Your task to perform on an android device: change your default location settings in chrome Image 0: 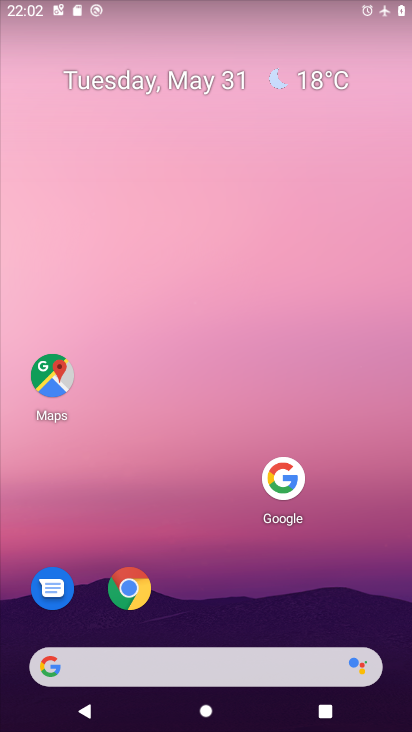
Step 0: press home button
Your task to perform on an android device: change your default location settings in chrome Image 1: 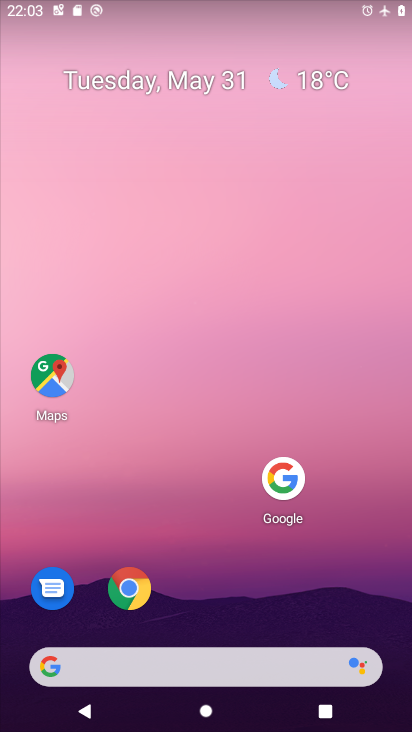
Step 1: click (126, 593)
Your task to perform on an android device: change your default location settings in chrome Image 2: 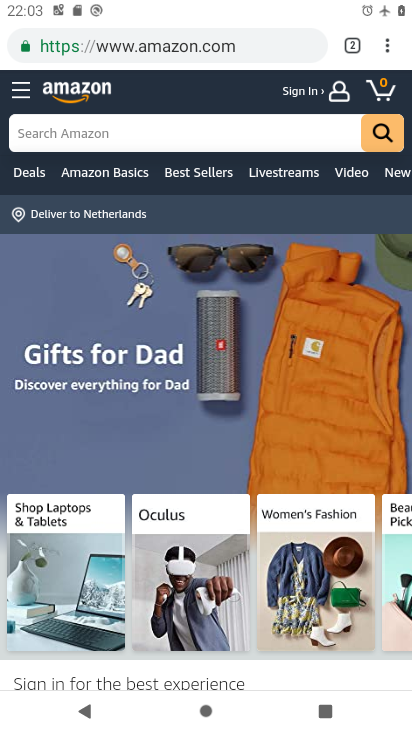
Step 2: drag from (383, 45) to (257, 512)
Your task to perform on an android device: change your default location settings in chrome Image 3: 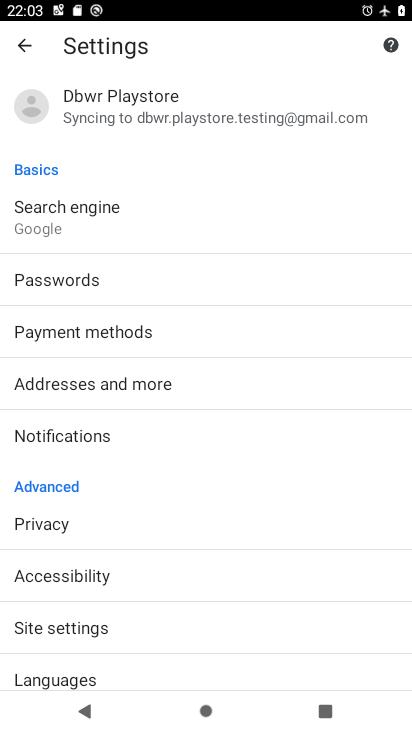
Step 3: click (88, 625)
Your task to perform on an android device: change your default location settings in chrome Image 4: 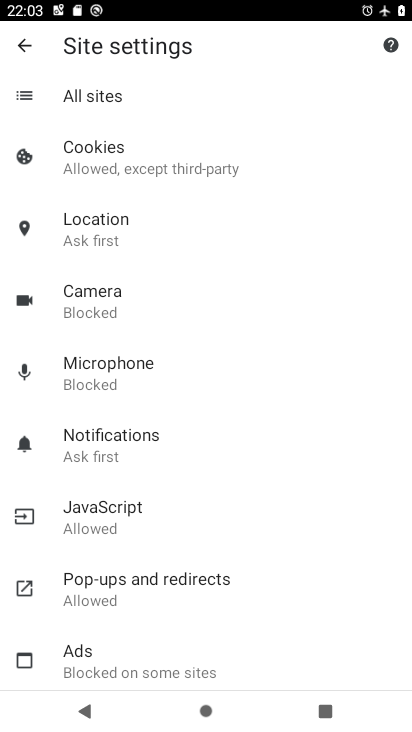
Step 4: click (102, 237)
Your task to perform on an android device: change your default location settings in chrome Image 5: 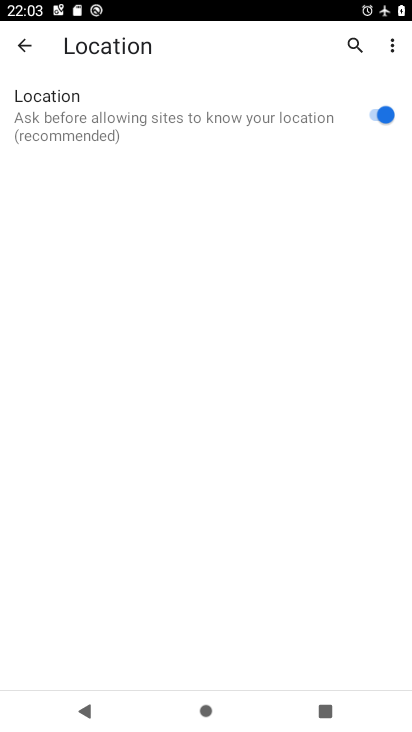
Step 5: click (369, 111)
Your task to perform on an android device: change your default location settings in chrome Image 6: 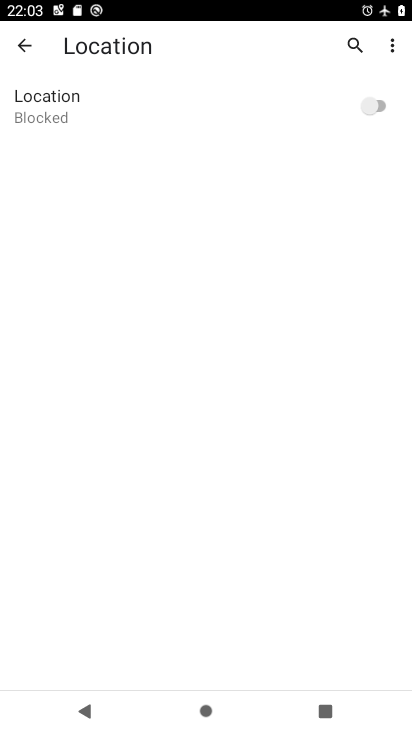
Step 6: task complete